Your task to perform on an android device: Open Wikipedia Image 0: 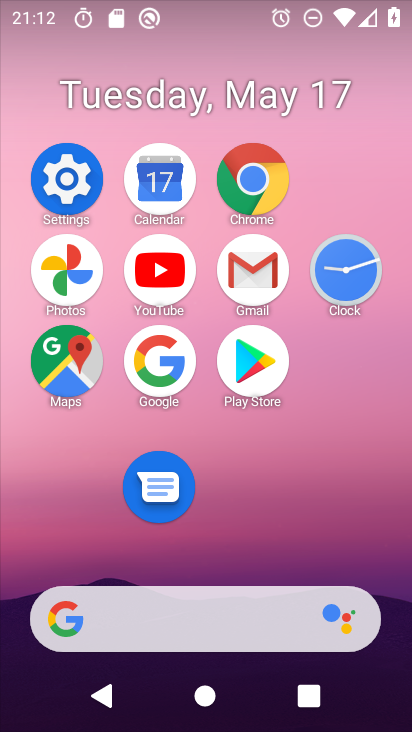
Step 0: click (244, 191)
Your task to perform on an android device: Open Wikipedia Image 1: 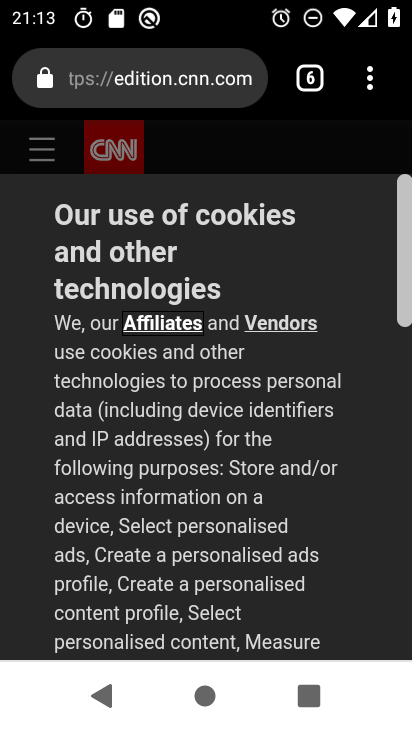
Step 1: click (317, 86)
Your task to perform on an android device: Open Wikipedia Image 2: 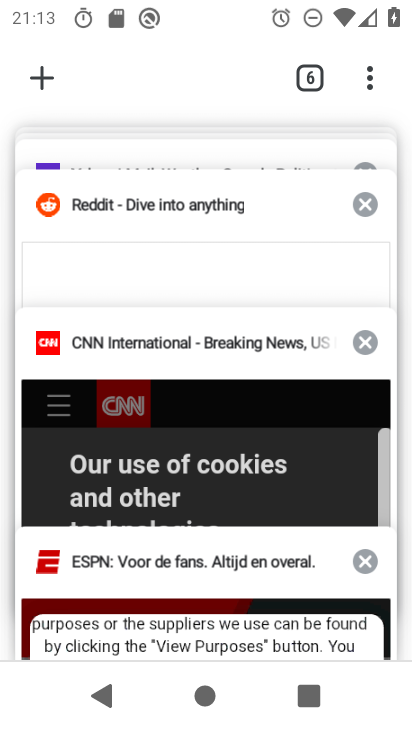
Step 2: drag from (150, 205) to (170, 468)
Your task to perform on an android device: Open Wikipedia Image 3: 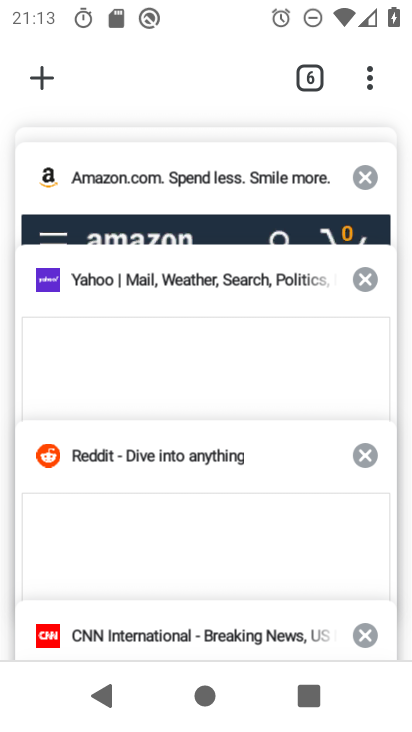
Step 3: drag from (176, 185) to (190, 517)
Your task to perform on an android device: Open Wikipedia Image 4: 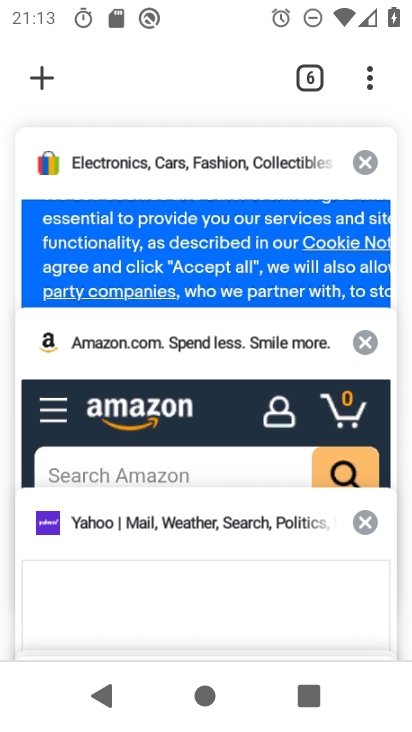
Step 4: drag from (189, 205) to (206, 512)
Your task to perform on an android device: Open Wikipedia Image 5: 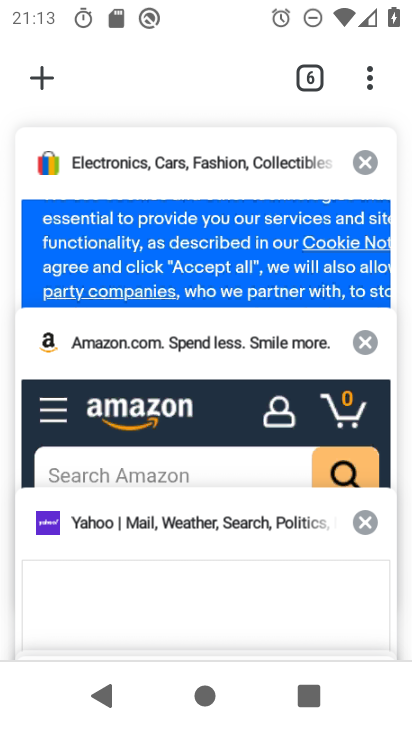
Step 5: click (60, 74)
Your task to perform on an android device: Open Wikipedia Image 6: 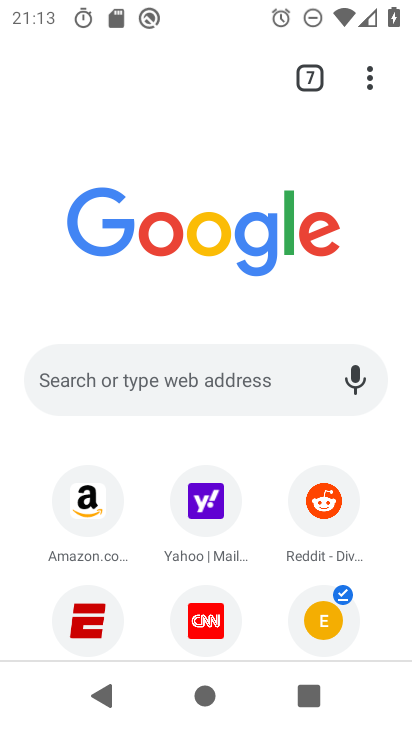
Step 6: click (283, 359)
Your task to perform on an android device: Open Wikipedia Image 7: 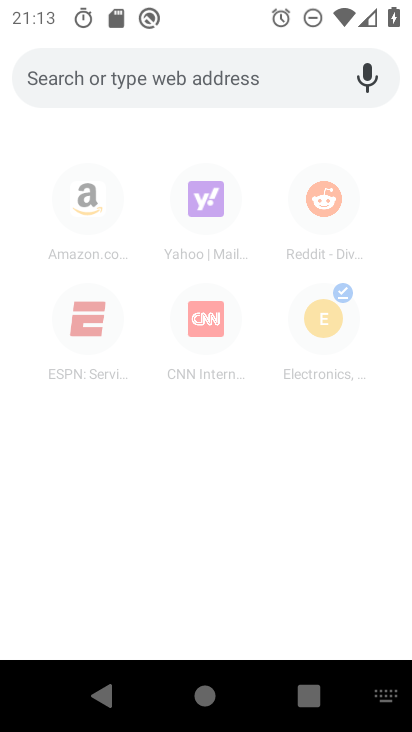
Step 7: type "wikepedia"
Your task to perform on an android device: Open Wikipedia Image 8: 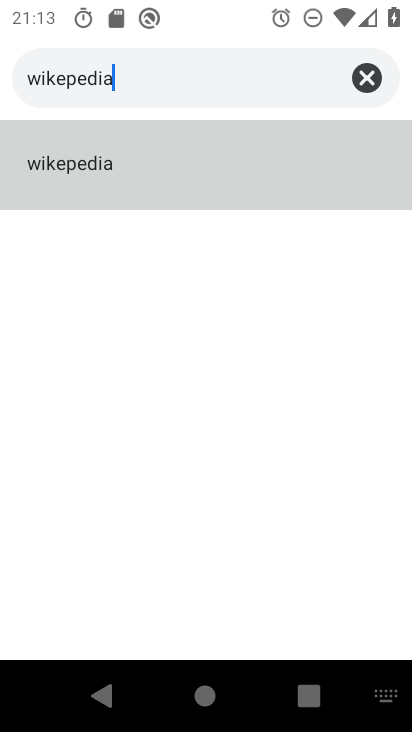
Step 8: click (257, 163)
Your task to perform on an android device: Open Wikipedia Image 9: 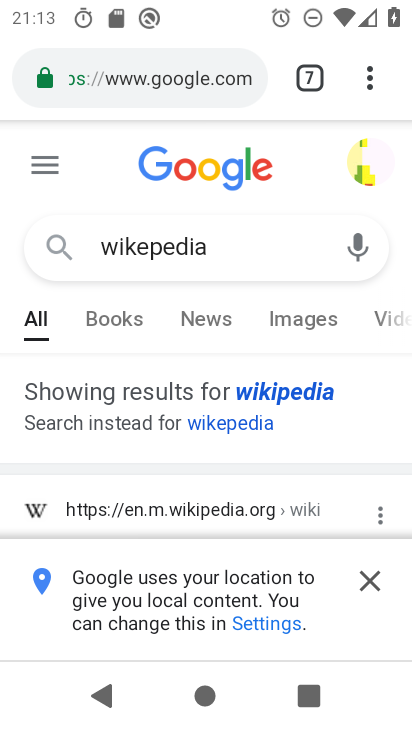
Step 9: click (378, 584)
Your task to perform on an android device: Open Wikipedia Image 10: 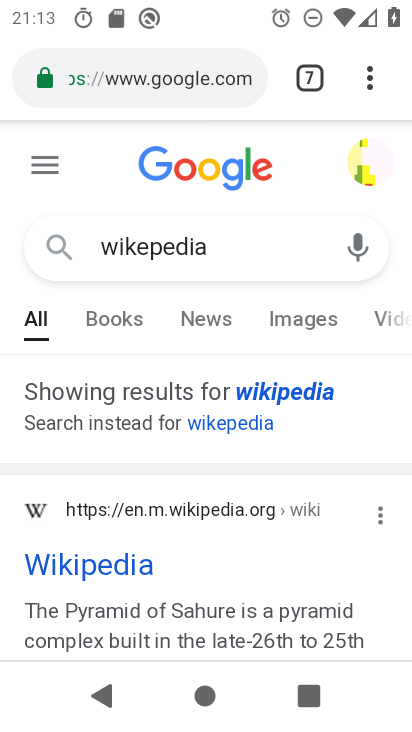
Step 10: drag from (262, 562) to (282, 280)
Your task to perform on an android device: Open Wikipedia Image 11: 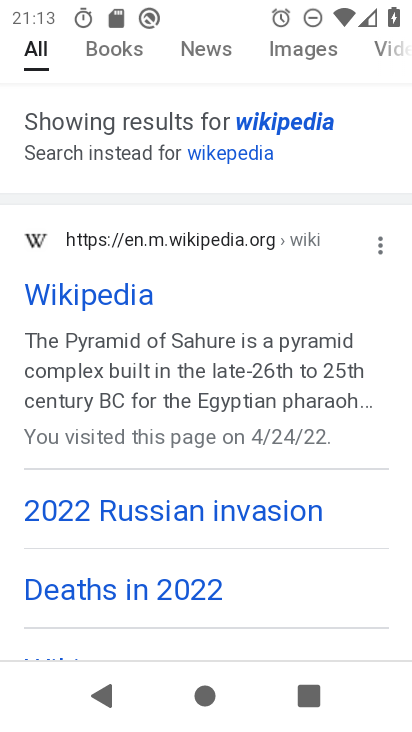
Step 11: click (178, 243)
Your task to perform on an android device: Open Wikipedia Image 12: 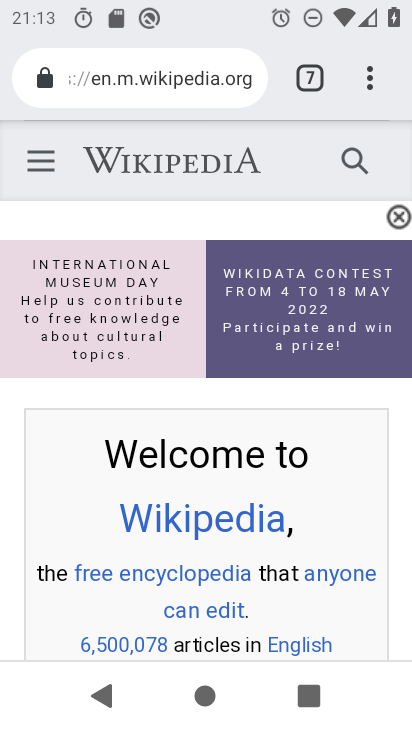
Step 12: task complete